Your task to perform on an android device: Open calendar and show me the third week of next month Image 0: 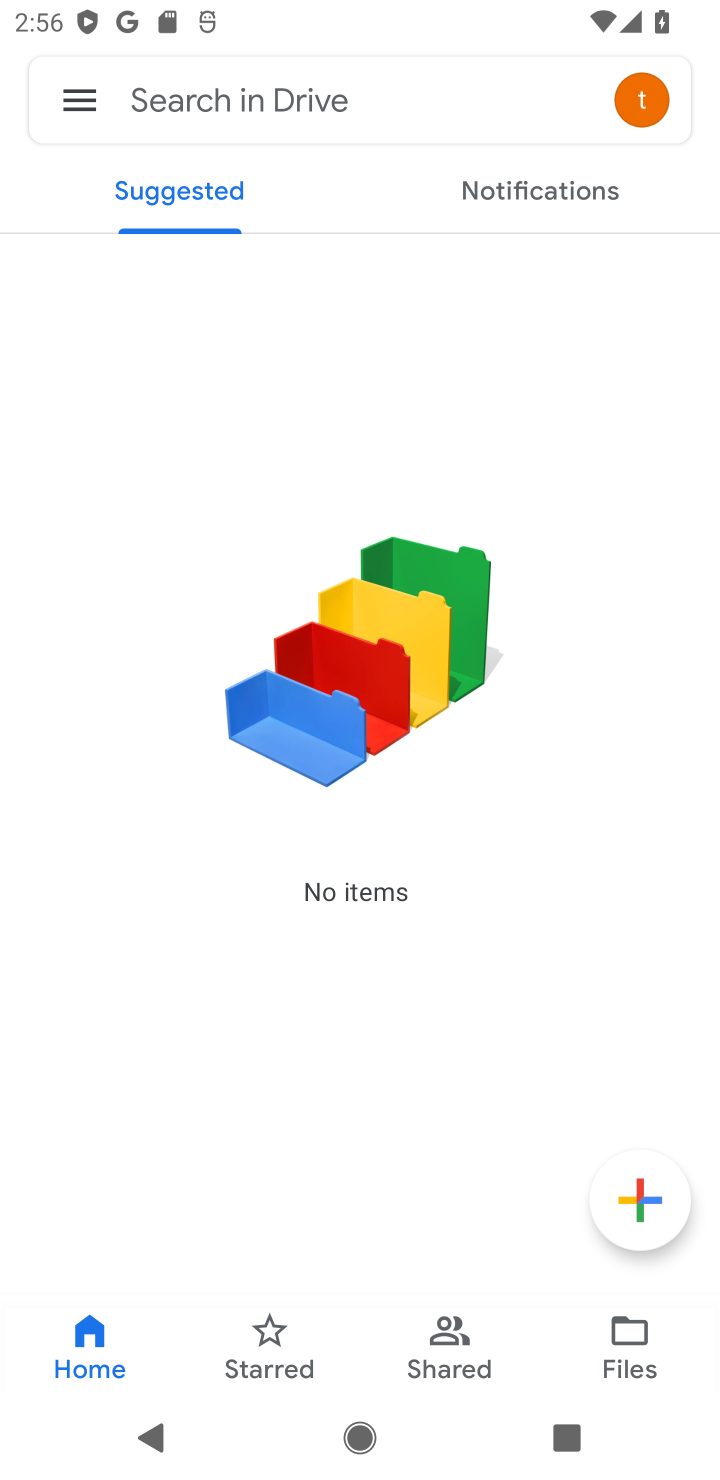
Step 0: press home button
Your task to perform on an android device: Open calendar and show me the third week of next month Image 1: 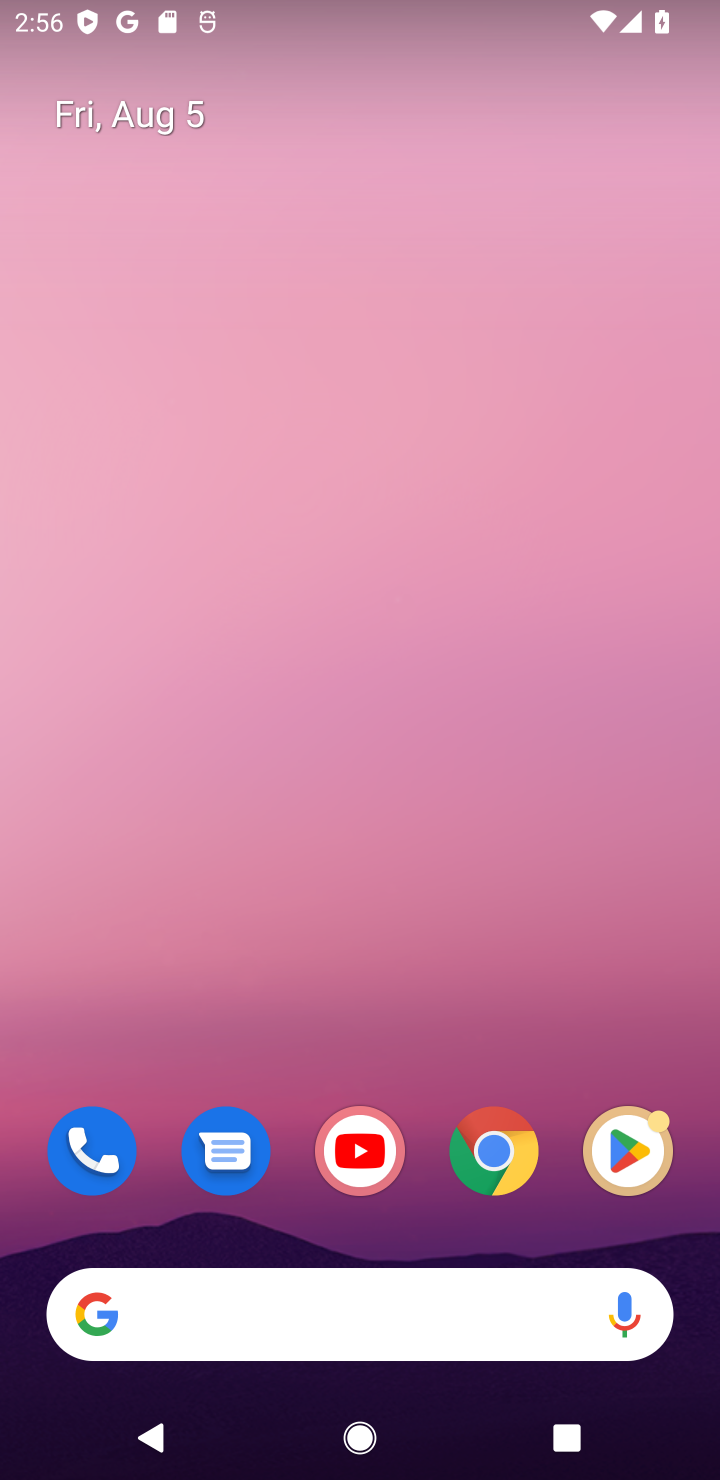
Step 1: drag from (450, 1078) to (320, 73)
Your task to perform on an android device: Open calendar and show me the third week of next month Image 2: 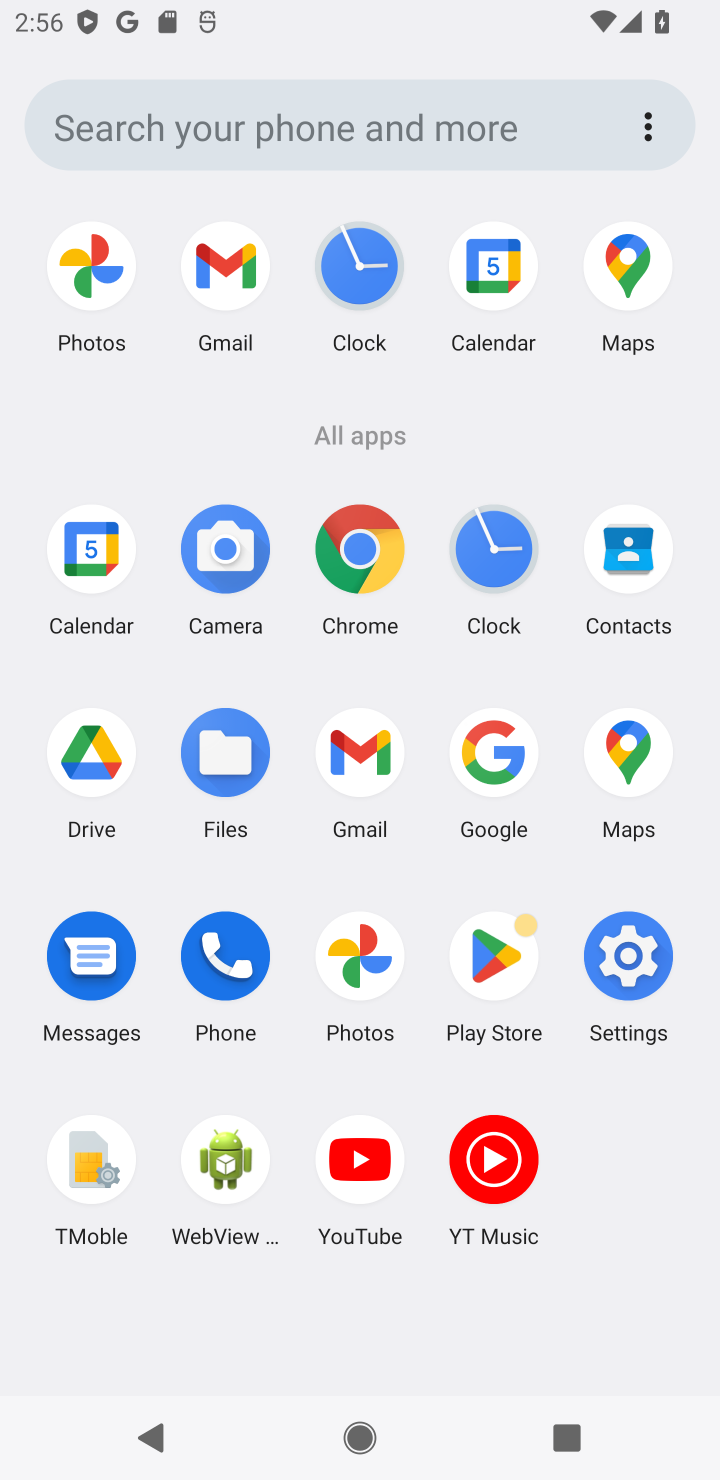
Step 2: click (73, 553)
Your task to perform on an android device: Open calendar and show me the third week of next month Image 3: 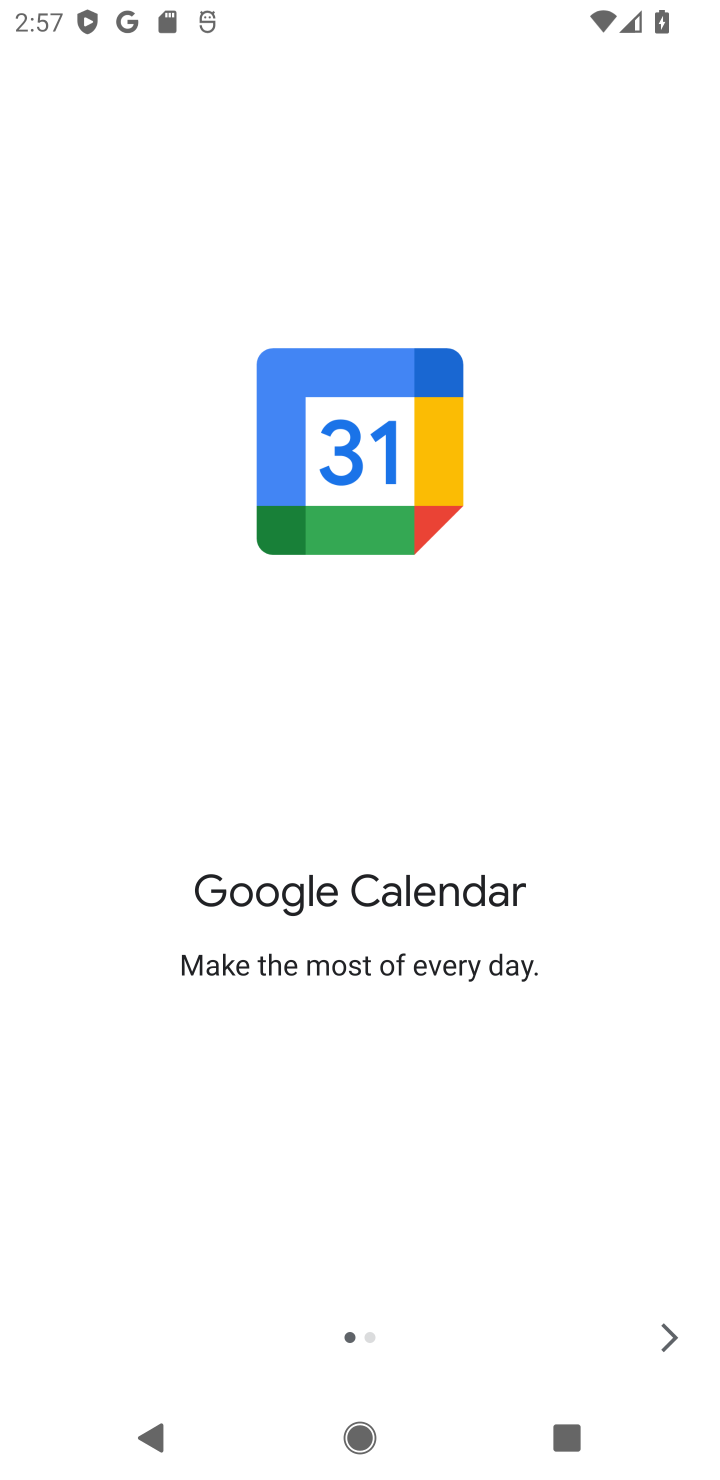
Step 3: click (673, 1327)
Your task to perform on an android device: Open calendar and show me the third week of next month Image 4: 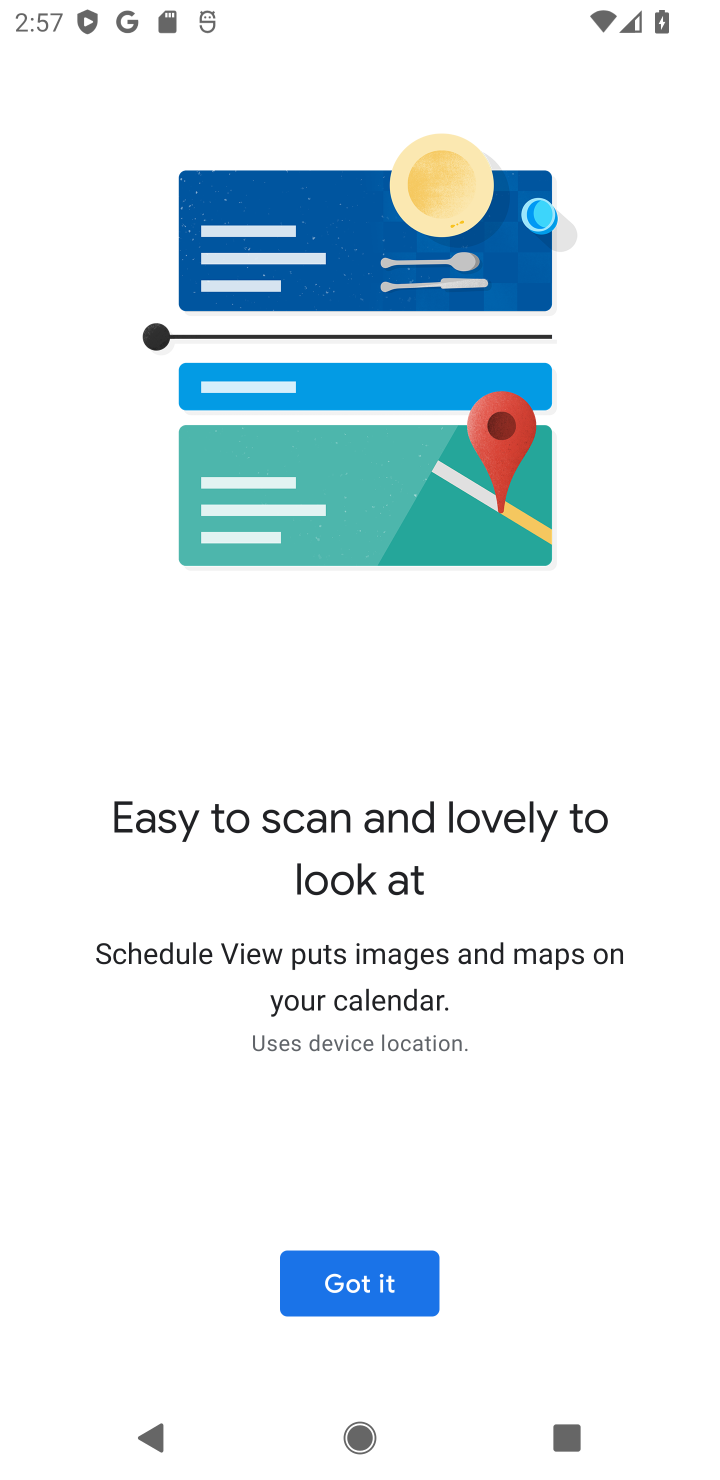
Step 4: click (673, 1327)
Your task to perform on an android device: Open calendar and show me the third week of next month Image 5: 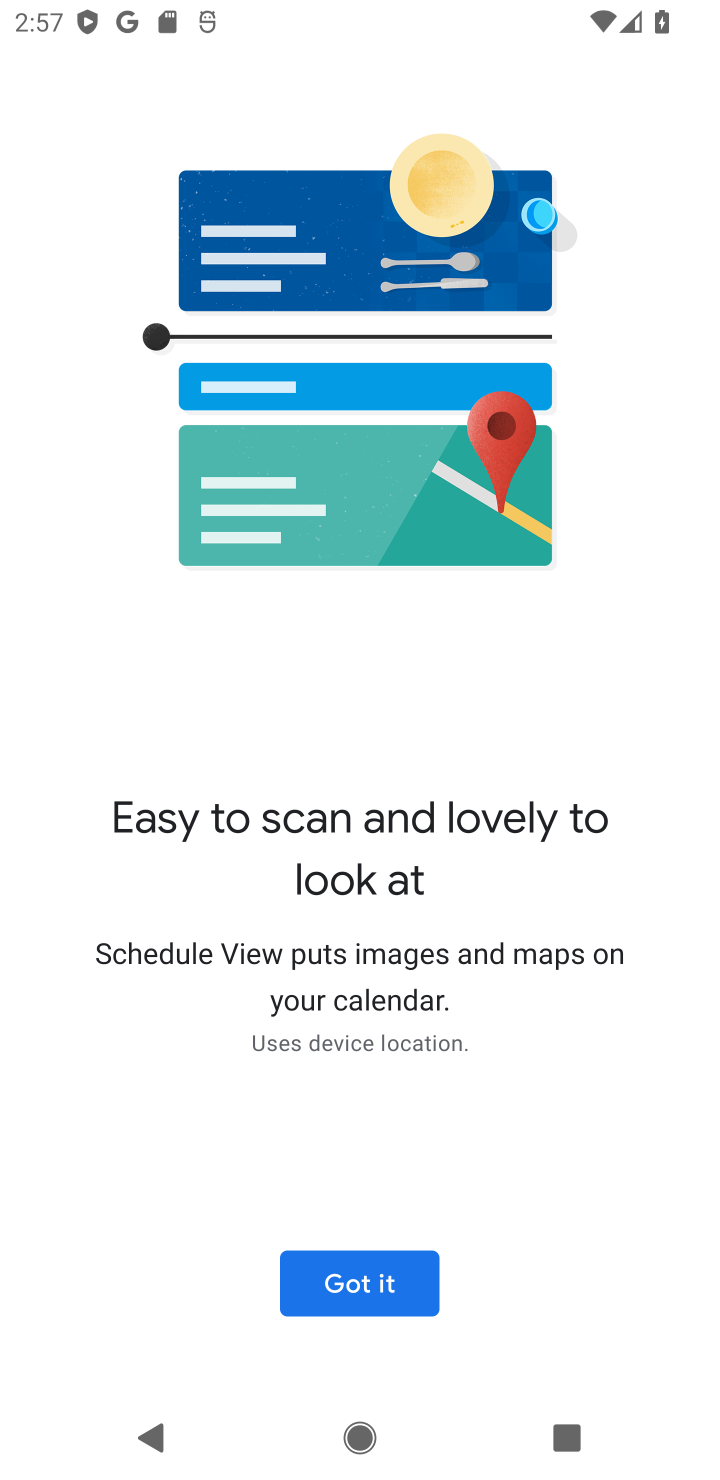
Step 5: click (354, 1280)
Your task to perform on an android device: Open calendar and show me the third week of next month Image 6: 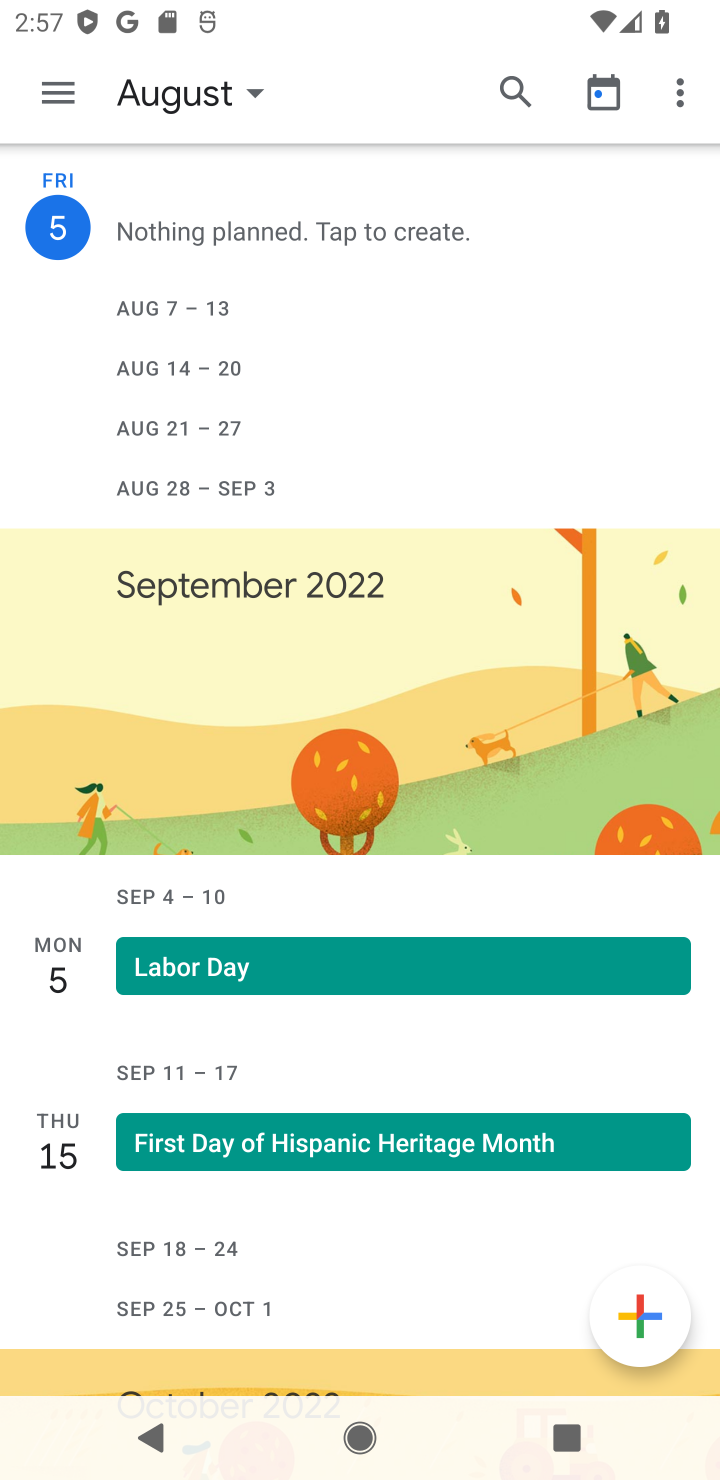
Step 6: click (155, 110)
Your task to perform on an android device: Open calendar and show me the third week of next month Image 7: 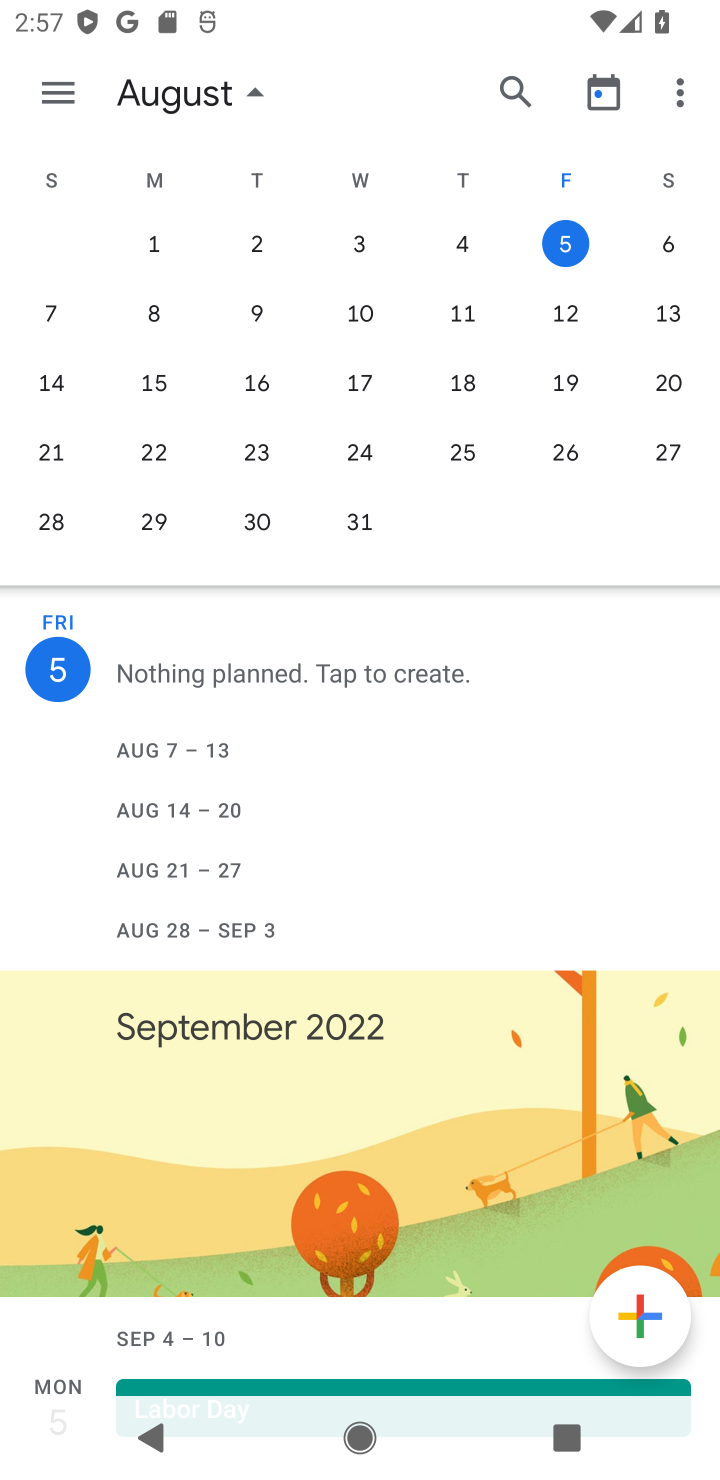
Step 7: drag from (634, 402) to (19, 489)
Your task to perform on an android device: Open calendar and show me the third week of next month Image 8: 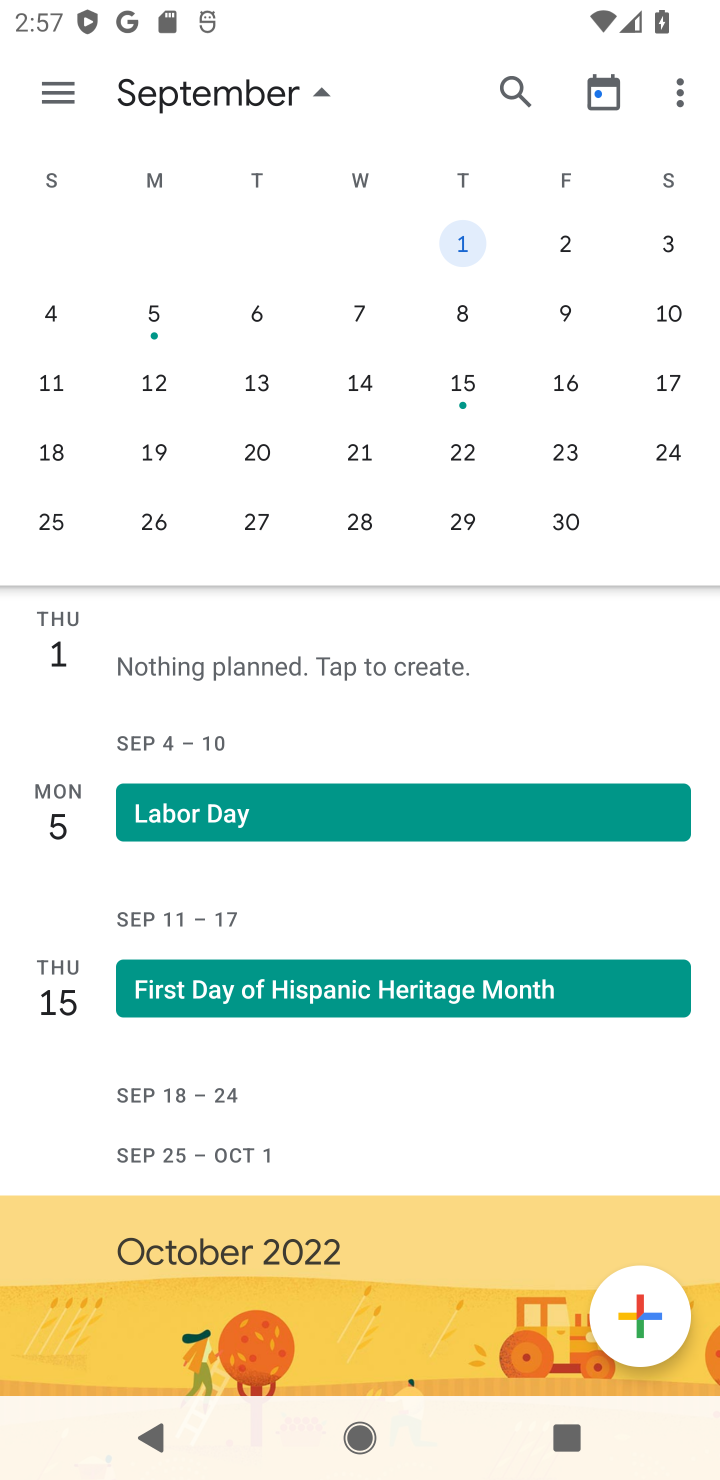
Step 8: click (62, 395)
Your task to perform on an android device: Open calendar and show me the third week of next month Image 9: 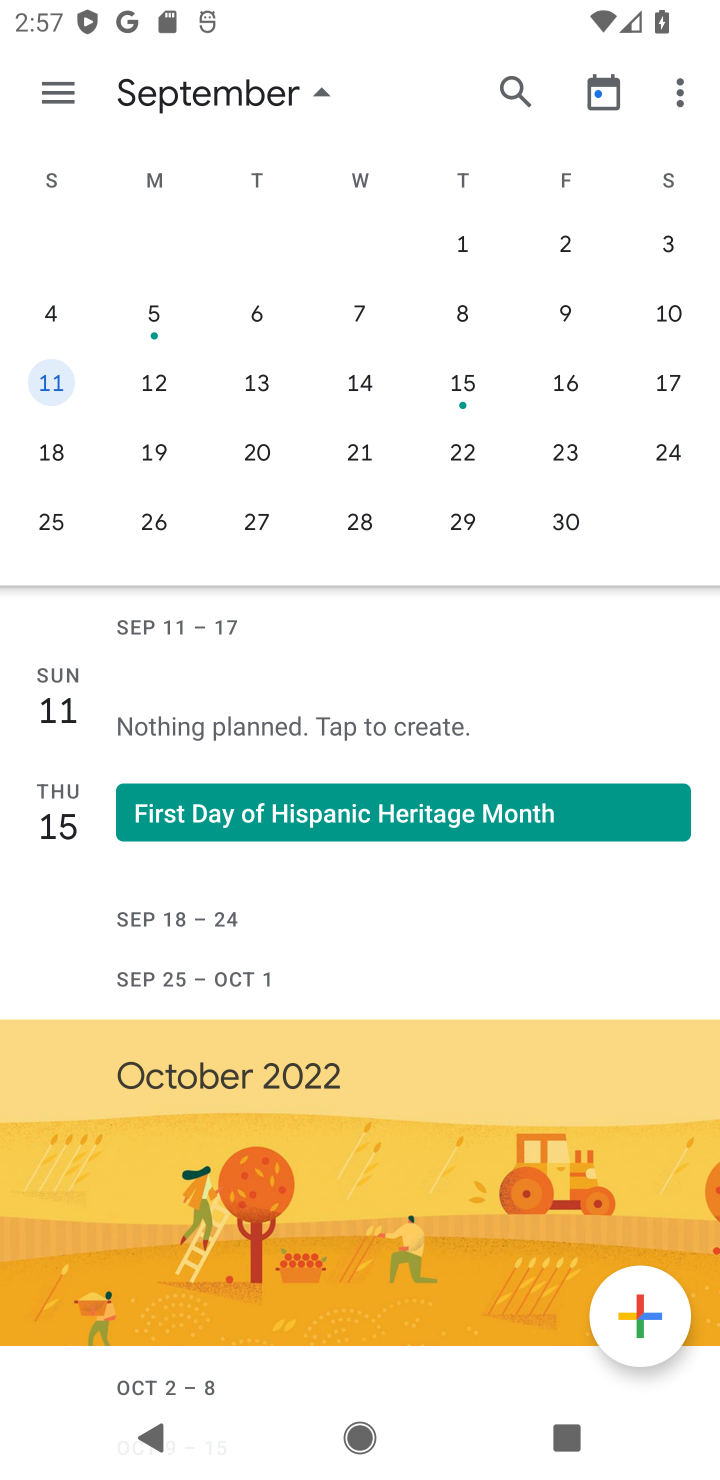
Step 9: task complete